Your task to perform on an android device: Check the weather Image 0: 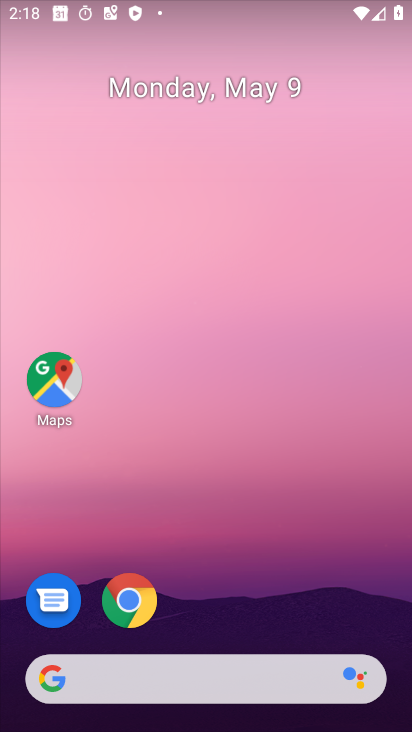
Step 0: drag from (252, 636) to (281, 273)
Your task to perform on an android device: Check the weather Image 1: 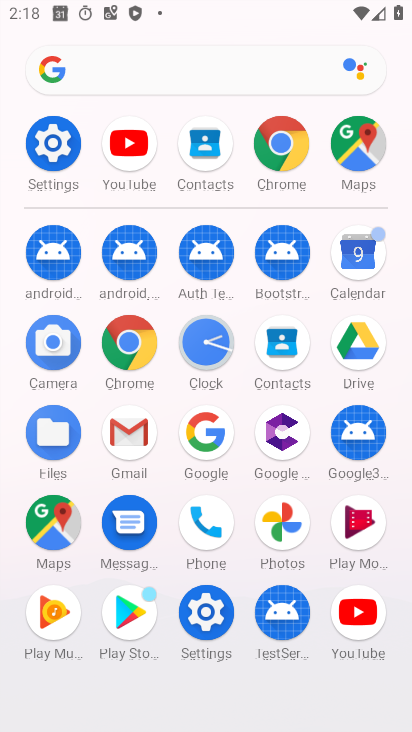
Step 1: click (198, 453)
Your task to perform on an android device: Check the weather Image 2: 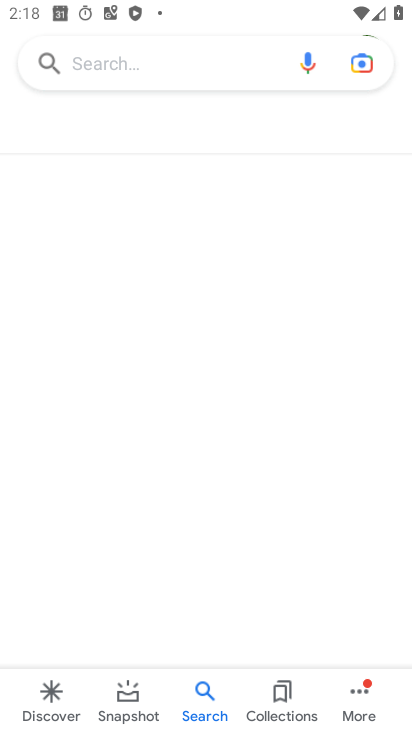
Step 2: click (71, 711)
Your task to perform on an android device: Check the weather Image 3: 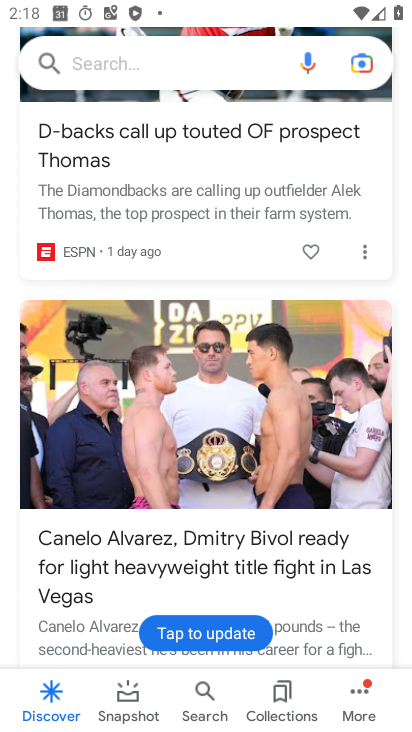
Step 3: task complete